Your task to perform on an android device: Go to internet settings Image 0: 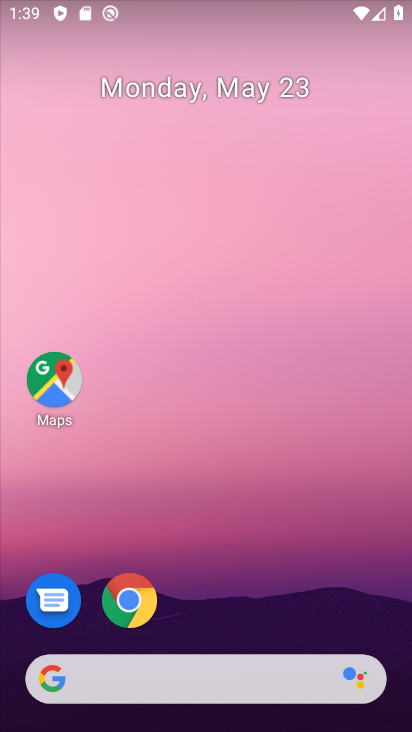
Step 0: drag from (221, 614) to (200, 199)
Your task to perform on an android device: Go to internet settings Image 1: 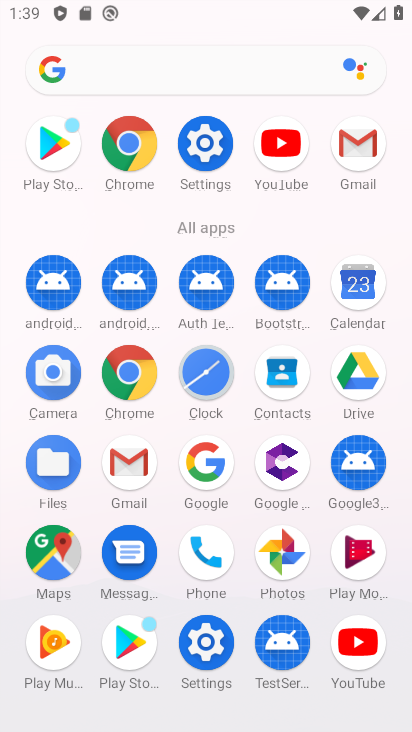
Step 1: click (198, 159)
Your task to perform on an android device: Go to internet settings Image 2: 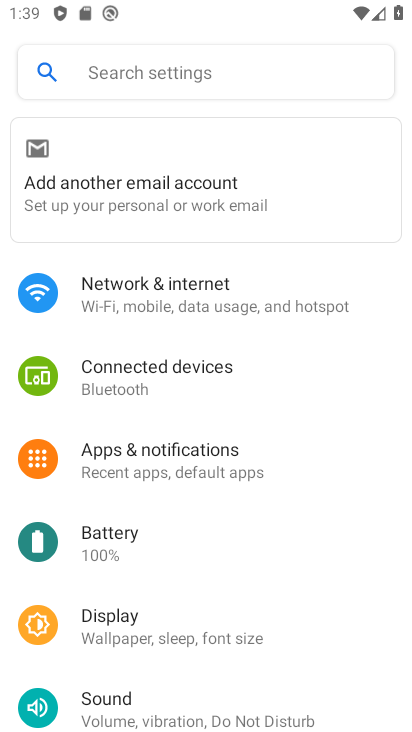
Step 2: click (194, 288)
Your task to perform on an android device: Go to internet settings Image 3: 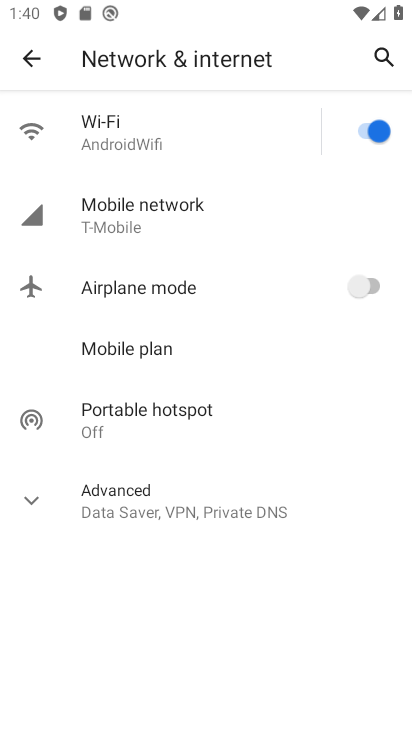
Step 3: task complete